Your task to perform on an android device: Go to eBay Image 0: 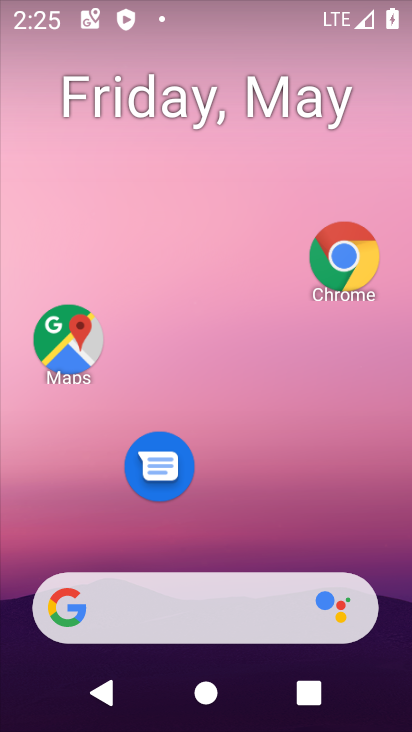
Step 0: click (352, 273)
Your task to perform on an android device: Go to eBay Image 1: 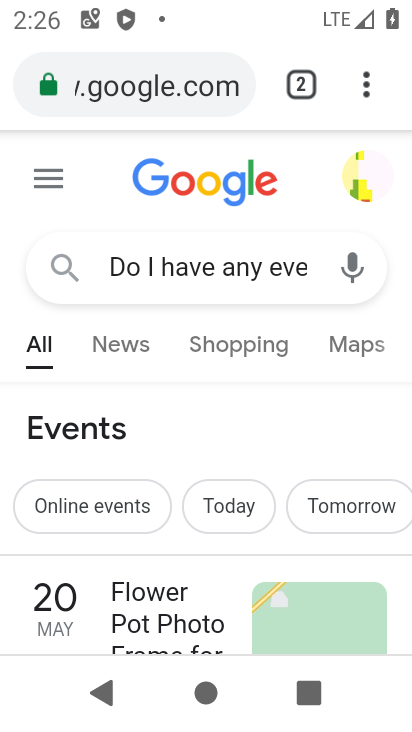
Step 1: click (128, 78)
Your task to perform on an android device: Go to eBay Image 2: 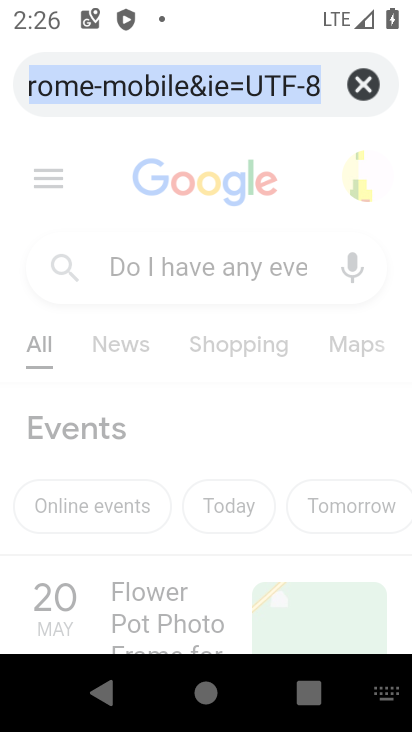
Step 2: click (354, 83)
Your task to perform on an android device: Go to eBay Image 3: 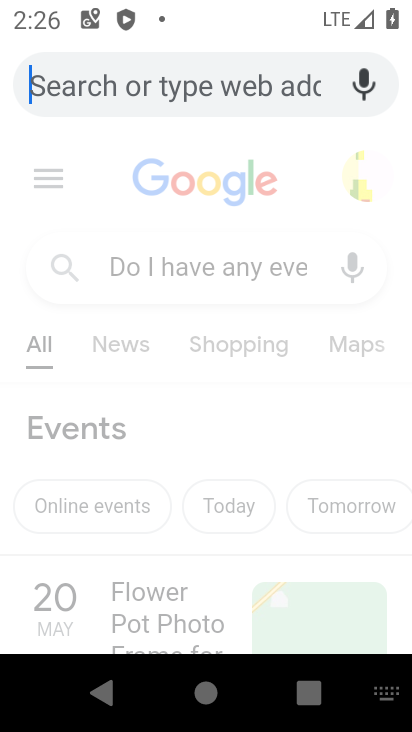
Step 3: type " eBay"
Your task to perform on an android device: Go to eBay Image 4: 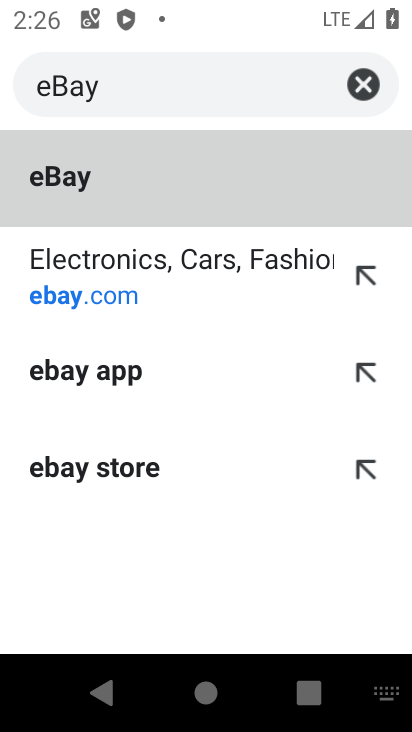
Step 4: click (106, 296)
Your task to perform on an android device: Go to eBay Image 5: 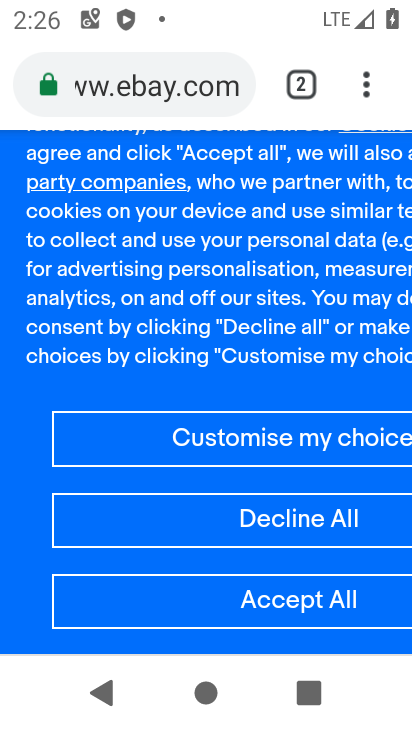
Step 5: task complete